Your task to perform on an android device: turn on data saver in the chrome app Image 0: 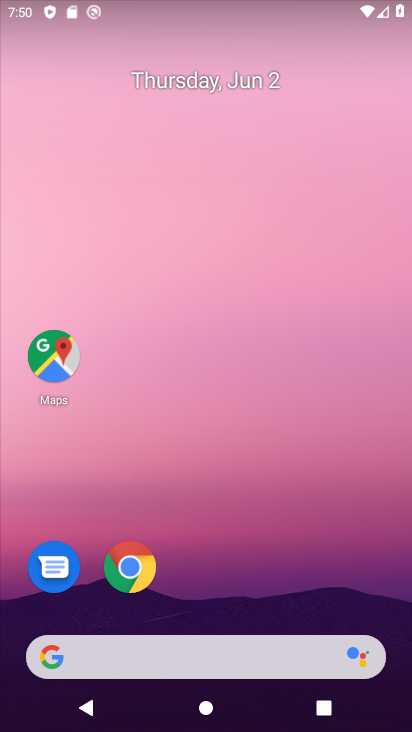
Step 0: click (132, 564)
Your task to perform on an android device: turn on data saver in the chrome app Image 1: 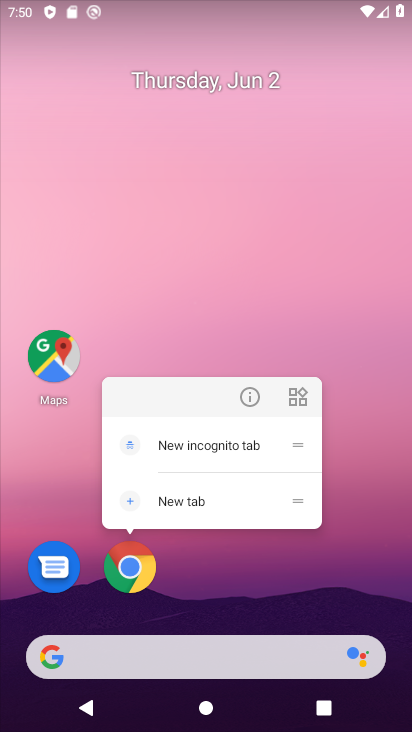
Step 1: click (130, 572)
Your task to perform on an android device: turn on data saver in the chrome app Image 2: 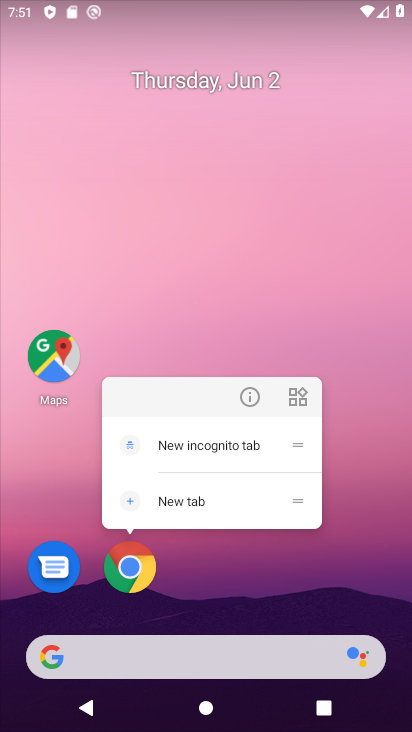
Step 2: click (248, 574)
Your task to perform on an android device: turn on data saver in the chrome app Image 3: 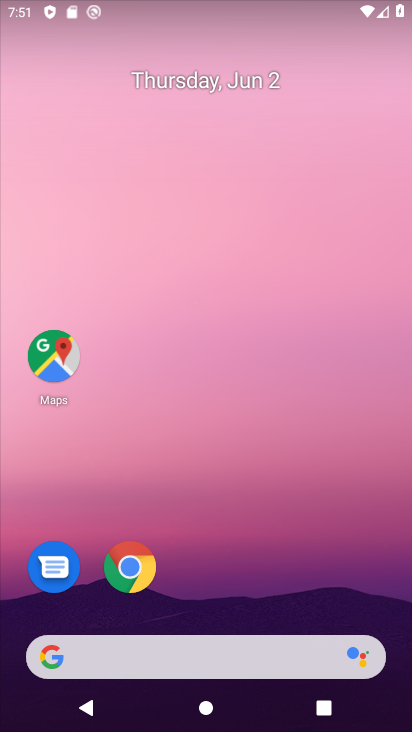
Step 3: drag from (258, 573) to (220, 115)
Your task to perform on an android device: turn on data saver in the chrome app Image 4: 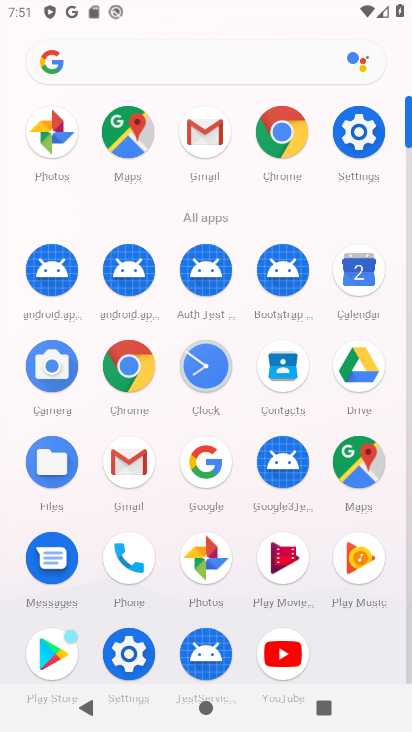
Step 4: click (130, 374)
Your task to perform on an android device: turn on data saver in the chrome app Image 5: 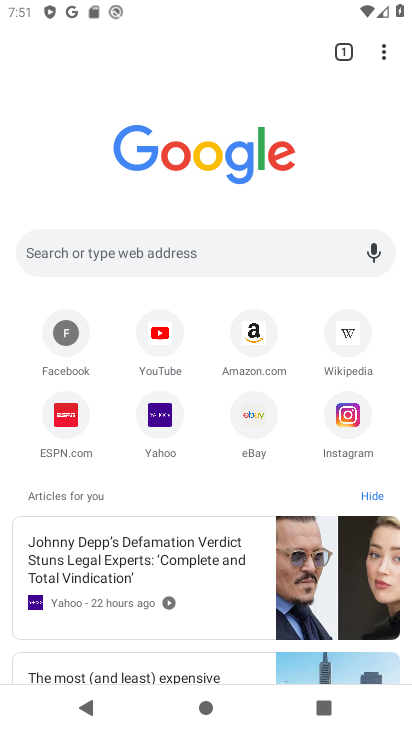
Step 5: drag from (387, 45) to (251, 425)
Your task to perform on an android device: turn on data saver in the chrome app Image 6: 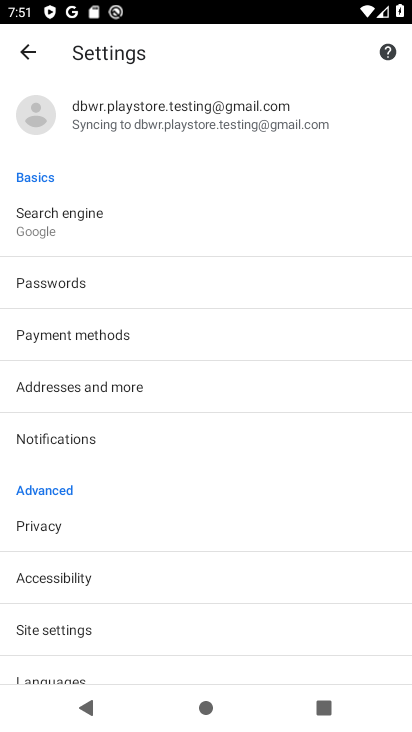
Step 6: drag from (163, 574) to (185, 276)
Your task to perform on an android device: turn on data saver in the chrome app Image 7: 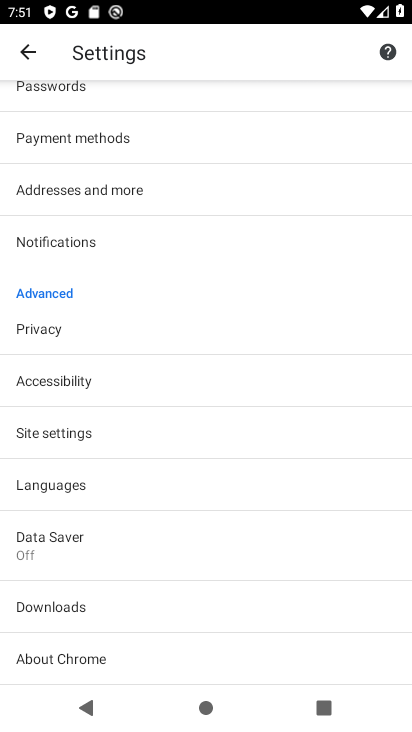
Step 7: click (43, 547)
Your task to perform on an android device: turn on data saver in the chrome app Image 8: 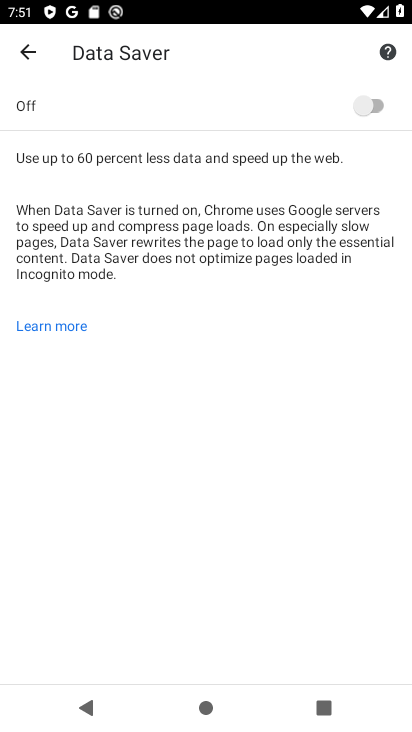
Step 8: click (369, 119)
Your task to perform on an android device: turn on data saver in the chrome app Image 9: 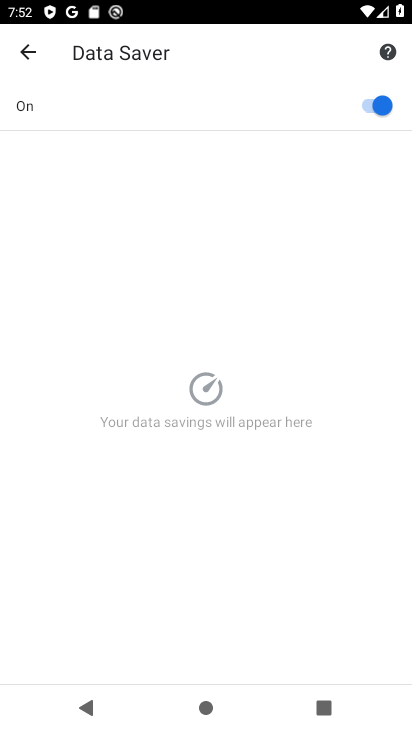
Step 9: task complete